Your task to perform on an android device: Open Wikipedia Image 0: 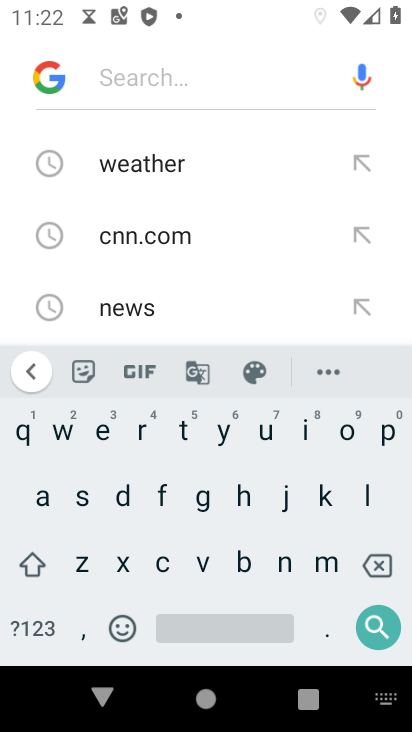
Step 0: press back button
Your task to perform on an android device: Open Wikipedia Image 1: 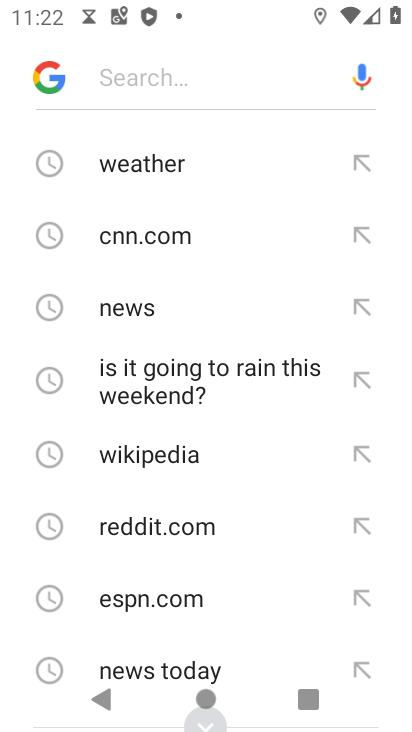
Step 1: press back button
Your task to perform on an android device: Open Wikipedia Image 2: 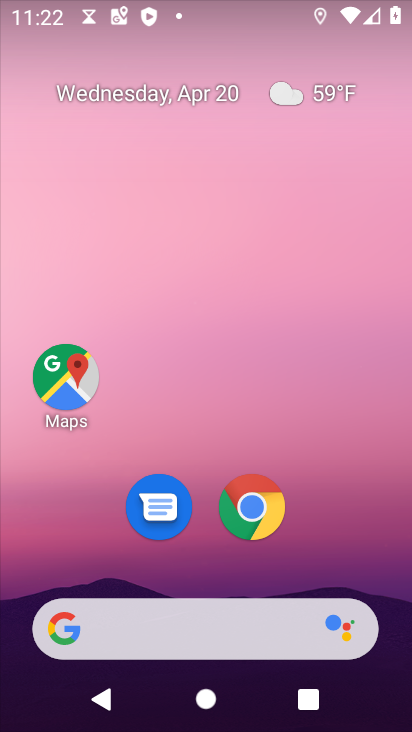
Step 2: drag from (251, 648) to (291, 148)
Your task to perform on an android device: Open Wikipedia Image 3: 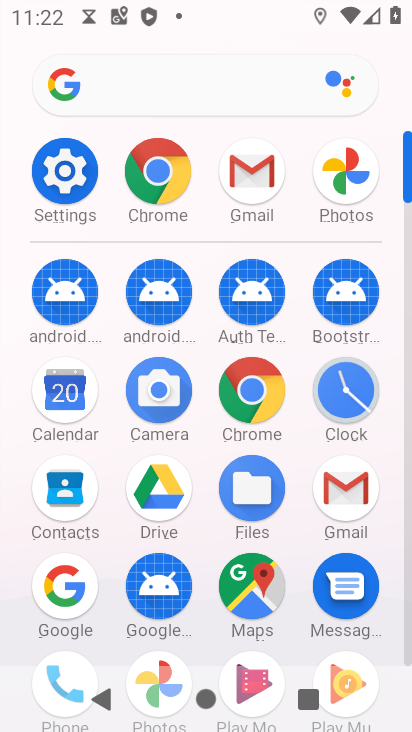
Step 3: click (165, 182)
Your task to perform on an android device: Open Wikipedia Image 4: 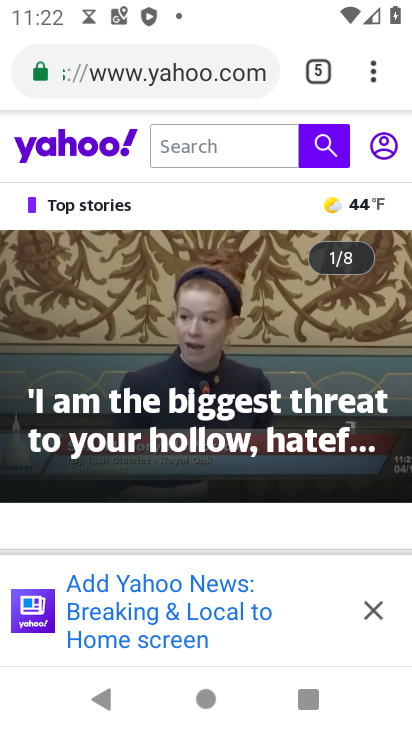
Step 4: click (313, 73)
Your task to perform on an android device: Open Wikipedia Image 5: 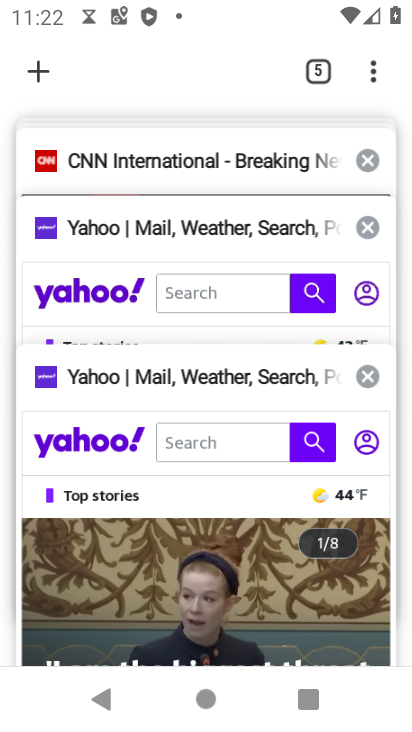
Step 5: click (359, 227)
Your task to perform on an android device: Open Wikipedia Image 6: 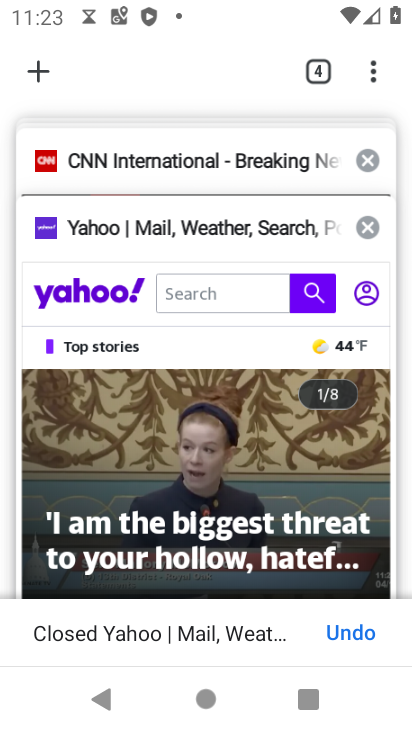
Step 6: click (359, 227)
Your task to perform on an android device: Open Wikipedia Image 7: 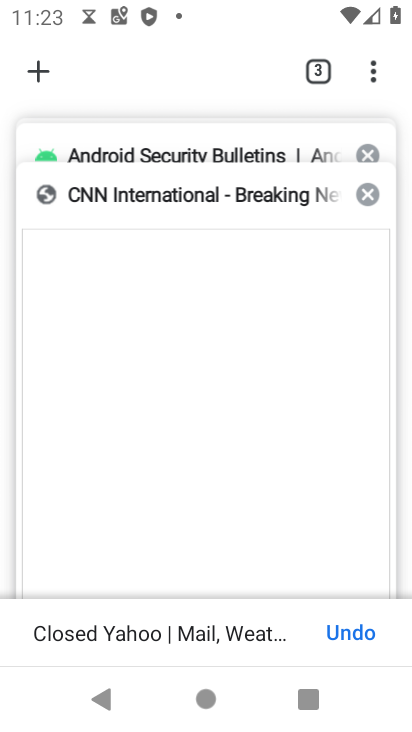
Step 7: click (46, 64)
Your task to perform on an android device: Open Wikipedia Image 8: 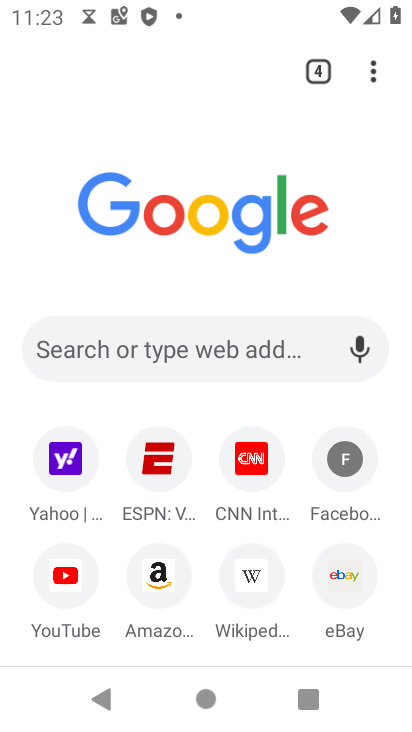
Step 8: click (255, 584)
Your task to perform on an android device: Open Wikipedia Image 9: 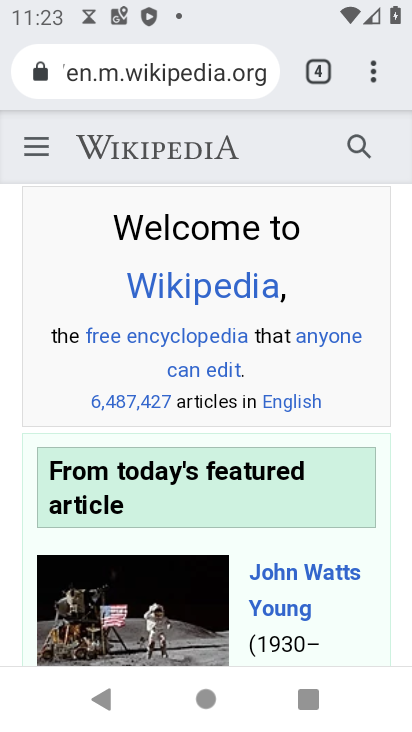
Step 9: task complete